Your task to perform on an android device: delete the emails in spam in the gmail app Image 0: 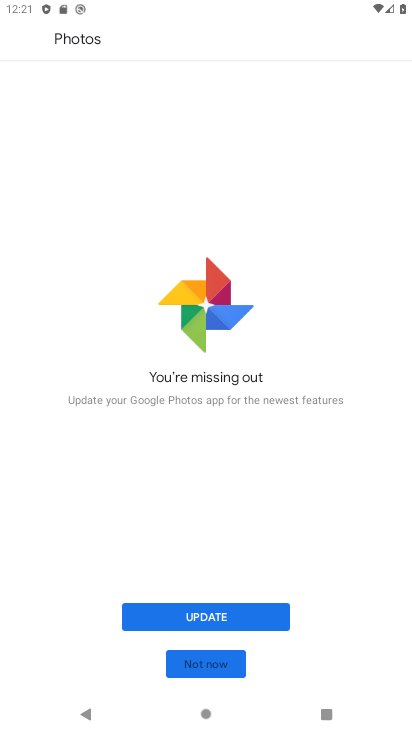
Step 0: click (212, 653)
Your task to perform on an android device: delete the emails in spam in the gmail app Image 1: 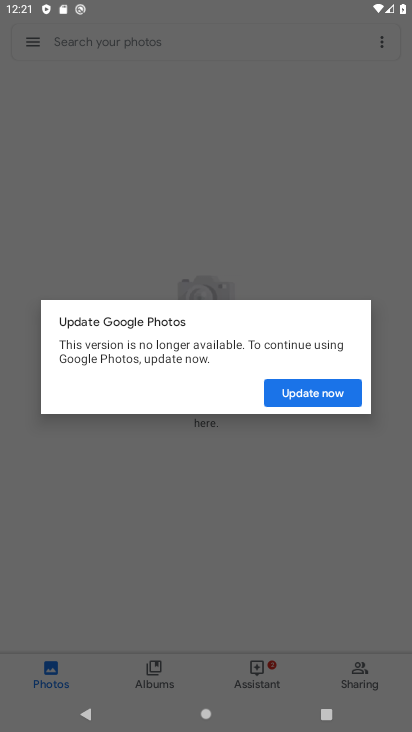
Step 1: click (320, 389)
Your task to perform on an android device: delete the emails in spam in the gmail app Image 2: 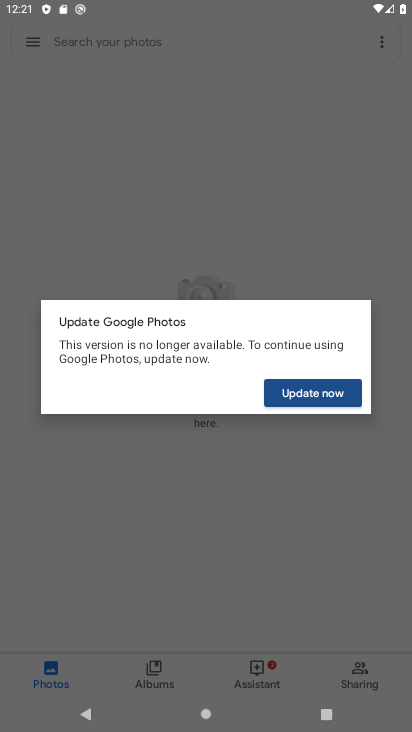
Step 2: click (320, 388)
Your task to perform on an android device: delete the emails in spam in the gmail app Image 3: 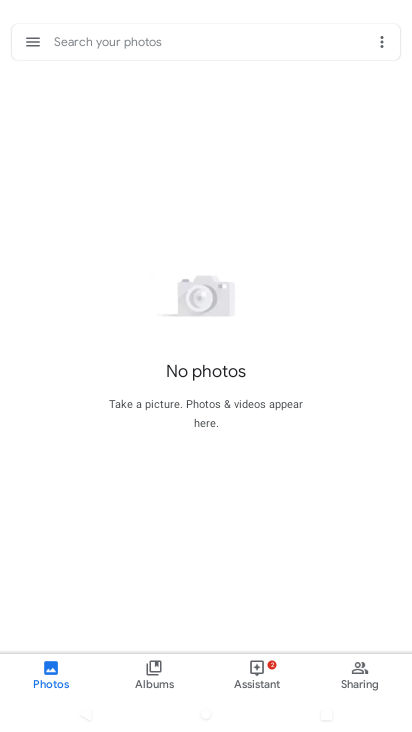
Step 3: click (320, 389)
Your task to perform on an android device: delete the emails in spam in the gmail app Image 4: 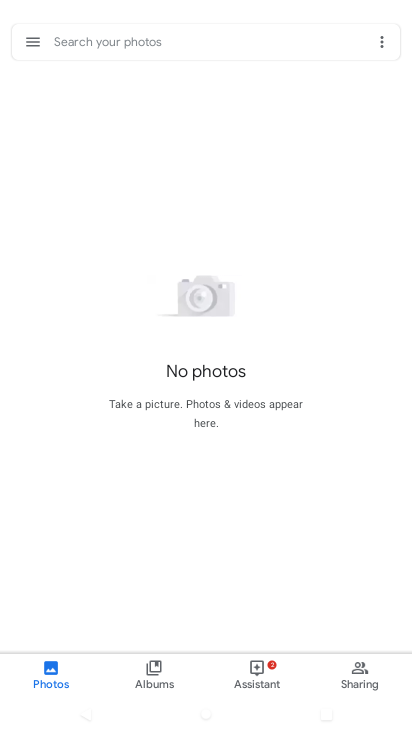
Step 4: click (320, 389)
Your task to perform on an android device: delete the emails in spam in the gmail app Image 5: 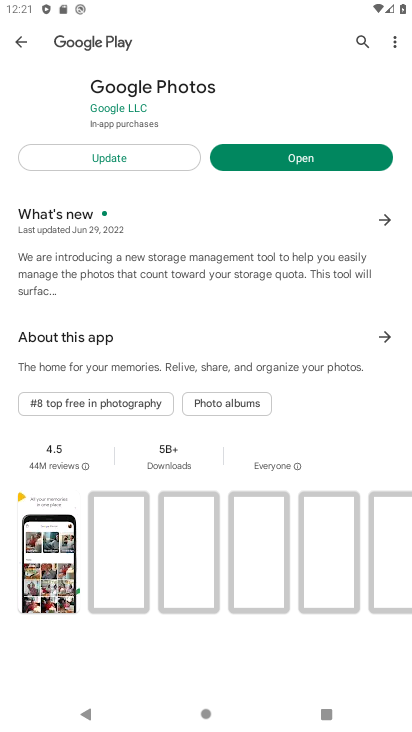
Step 5: press back button
Your task to perform on an android device: delete the emails in spam in the gmail app Image 6: 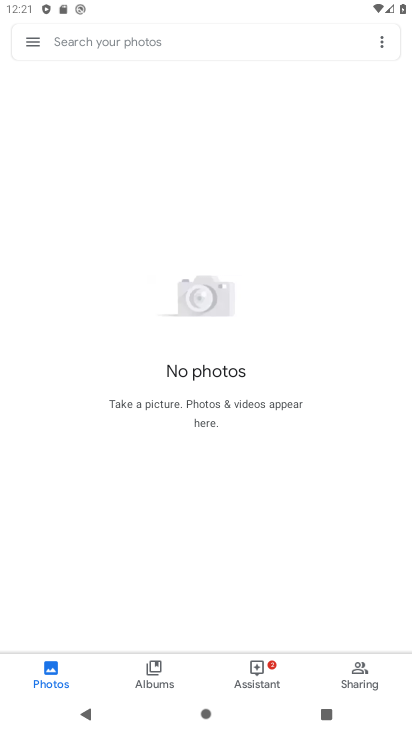
Step 6: click (20, 36)
Your task to perform on an android device: delete the emails in spam in the gmail app Image 7: 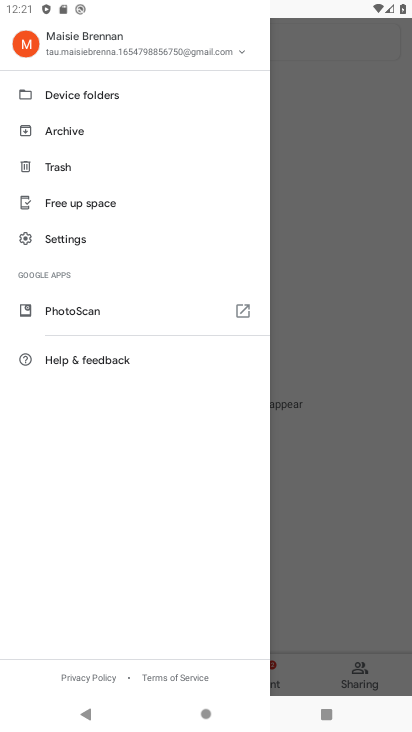
Step 7: press back button
Your task to perform on an android device: delete the emails in spam in the gmail app Image 8: 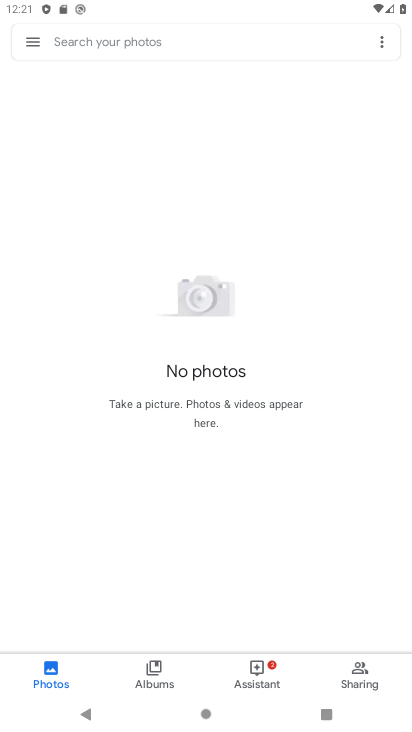
Step 8: press home button
Your task to perform on an android device: delete the emails in spam in the gmail app Image 9: 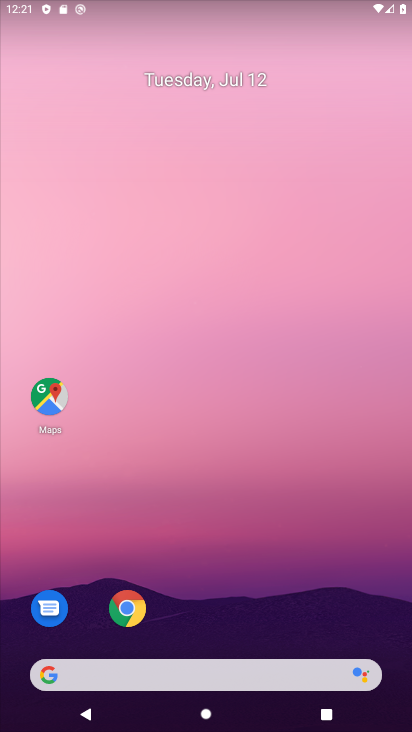
Step 9: drag from (170, 504) to (94, 336)
Your task to perform on an android device: delete the emails in spam in the gmail app Image 10: 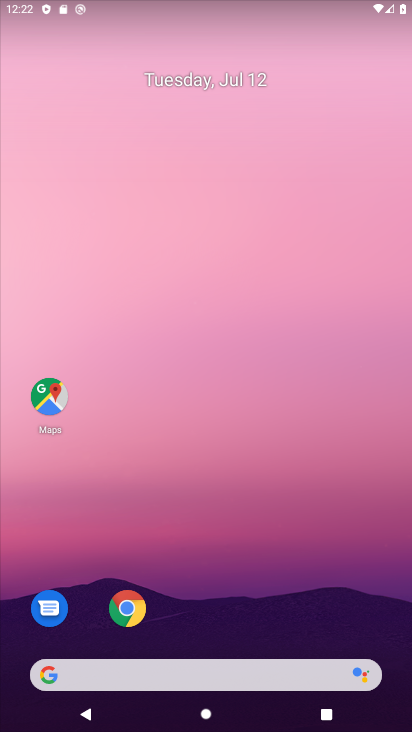
Step 10: click (236, 387)
Your task to perform on an android device: delete the emails in spam in the gmail app Image 11: 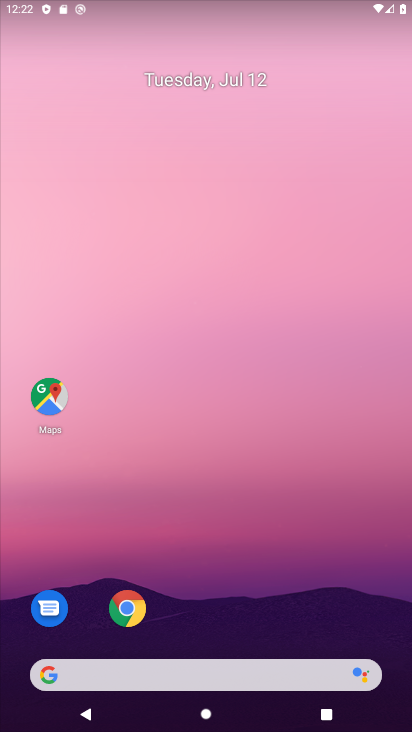
Step 11: drag from (257, 572) to (183, 144)
Your task to perform on an android device: delete the emails in spam in the gmail app Image 12: 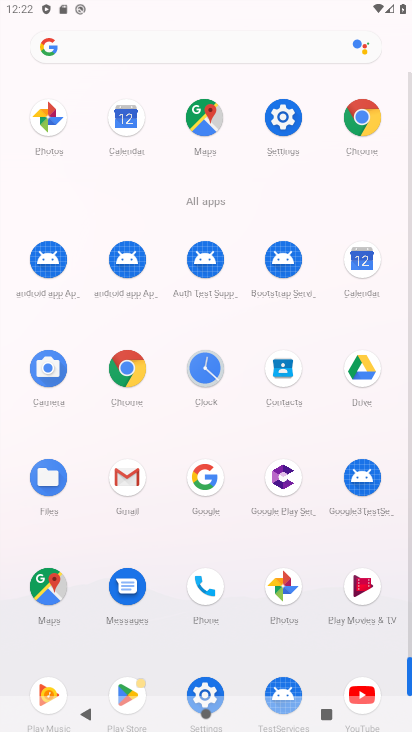
Step 12: drag from (168, 127) to (153, 19)
Your task to perform on an android device: delete the emails in spam in the gmail app Image 13: 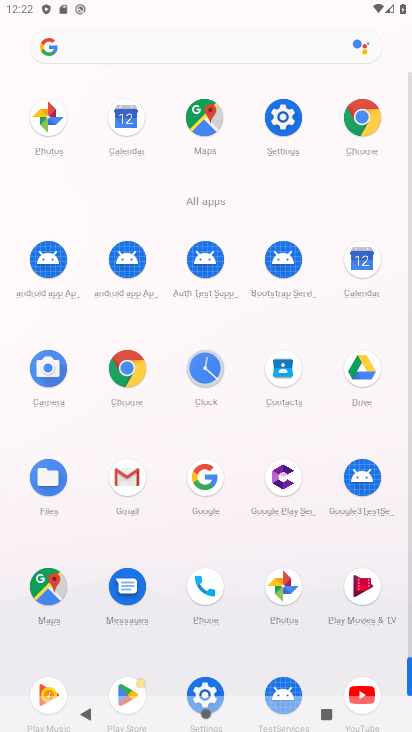
Step 13: click (126, 477)
Your task to perform on an android device: delete the emails in spam in the gmail app Image 14: 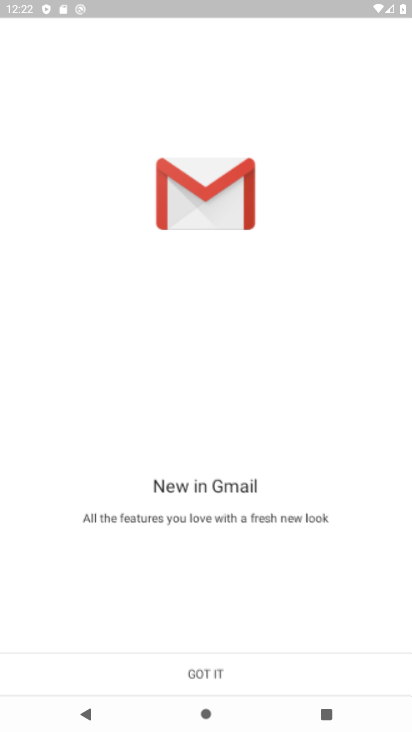
Step 14: click (95, 457)
Your task to perform on an android device: delete the emails in spam in the gmail app Image 15: 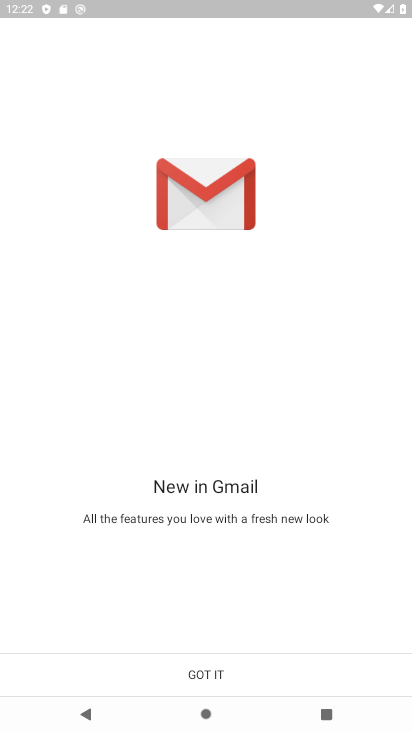
Step 15: click (124, 475)
Your task to perform on an android device: delete the emails in spam in the gmail app Image 16: 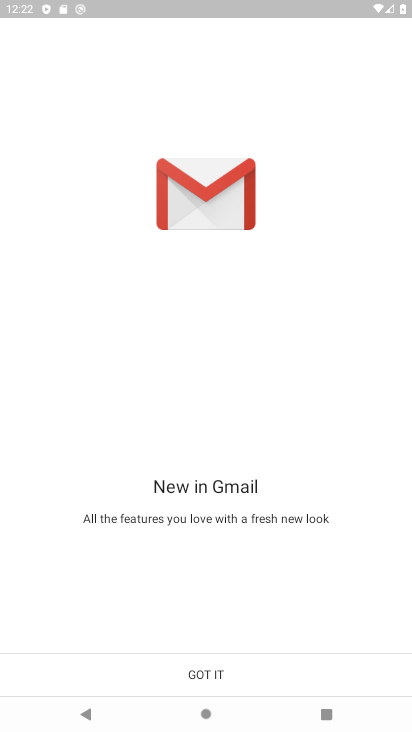
Step 16: click (209, 659)
Your task to perform on an android device: delete the emails in spam in the gmail app Image 17: 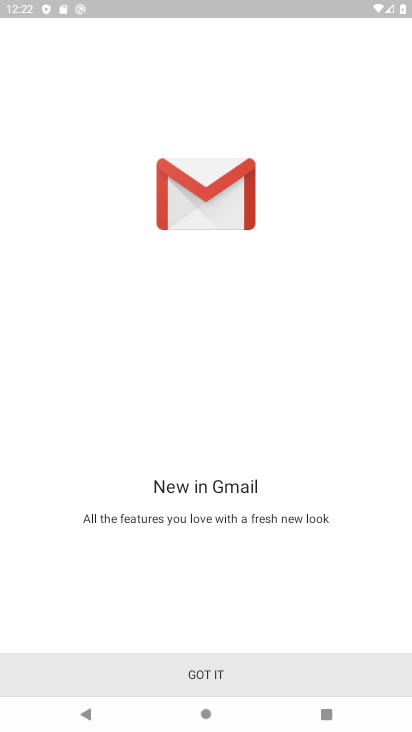
Step 17: click (211, 659)
Your task to perform on an android device: delete the emails in spam in the gmail app Image 18: 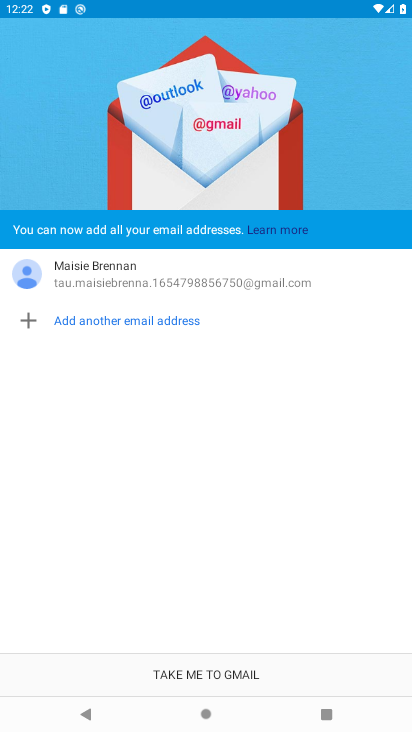
Step 18: click (219, 672)
Your task to perform on an android device: delete the emails in spam in the gmail app Image 19: 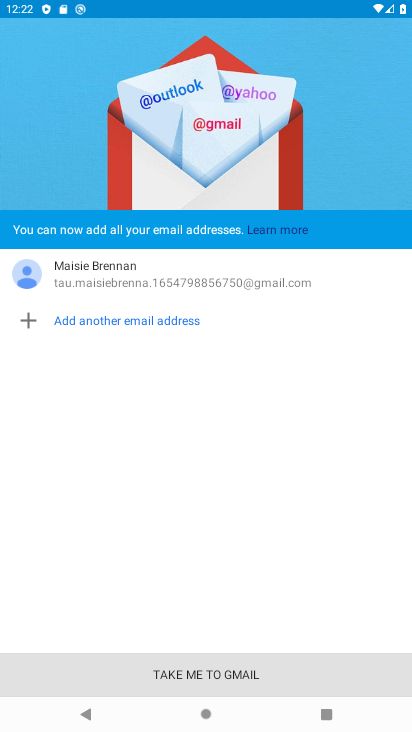
Step 19: click (220, 671)
Your task to perform on an android device: delete the emails in spam in the gmail app Image 20: 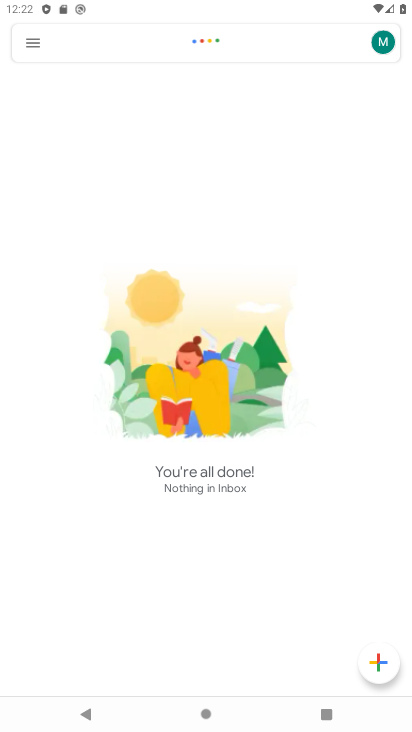
Step 20: click (29, 39)
Your task to perform on an android device: delete the emails in spam in the gmail app Image 21: 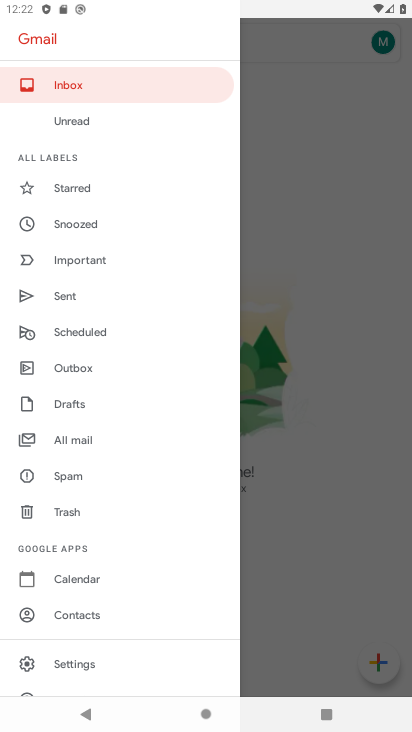
Step 21: click (67, 437)
Your task to perform on an android device: delete the emails in spam in the gmail app Image 22: 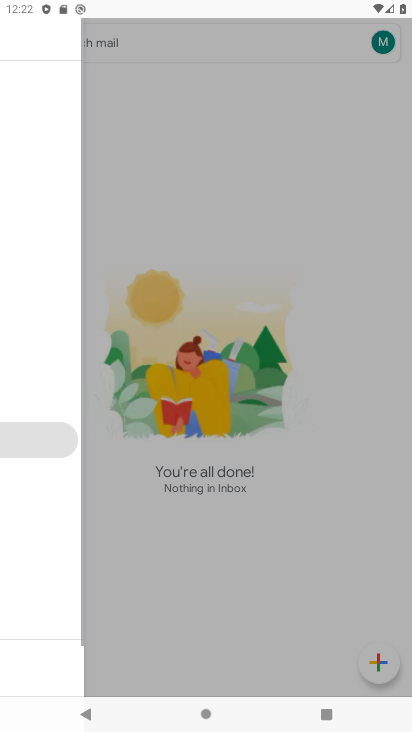
Step 22: click (66, 438)
Your task to perform on an android device: delete the emails in spam in the gmail app Image 23: 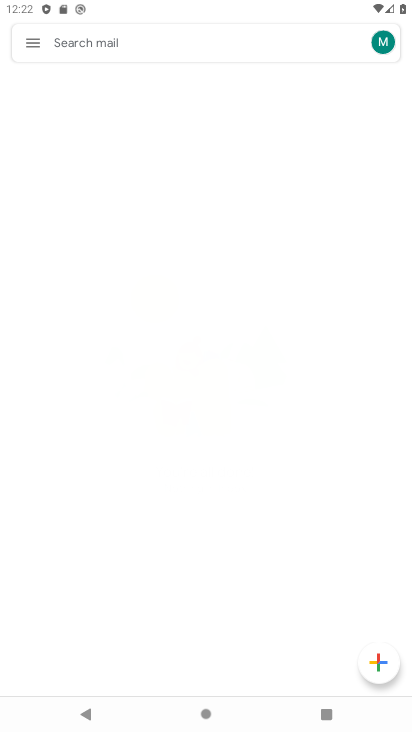
Step 23: click (68, 439)
Your task to perform on an android device: delete the emails in spam in the gmail app Image 24: 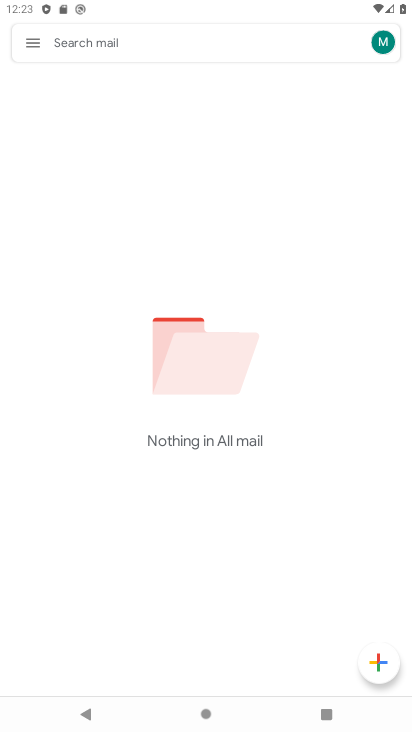
Step 24: click (41, 50)
Your task to perform on an android device: delete the emails in spam in the gmail app Image 25: 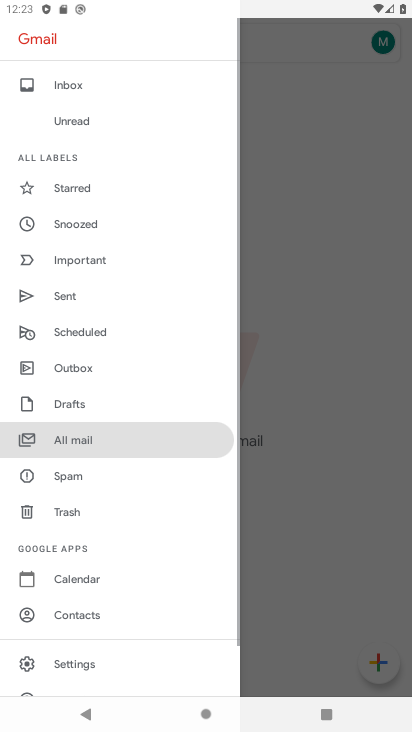
Step 25: click (45, 465)
Your task to perform on an android device: delete the emails in spam in the gmail app Image 26: 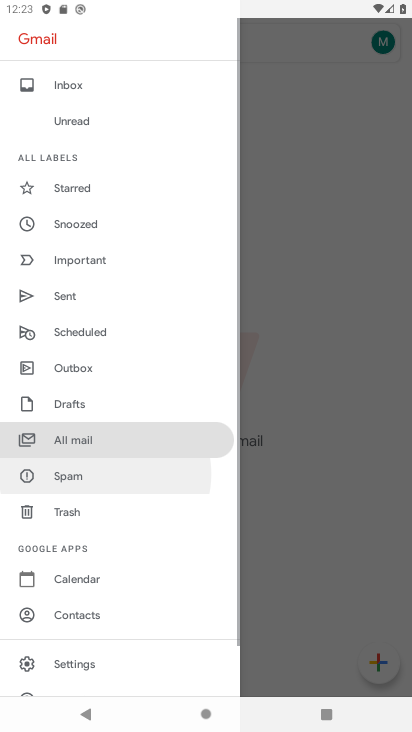
Step 26: click (49, 468)
Your task to perform on an android device: delete the emails in spam in the gmail app Image 27: 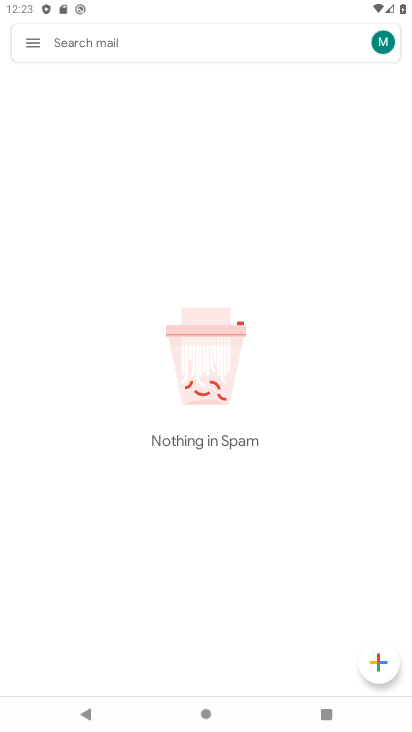
Step 27: task complete